Your task to perform on an android device: check data usage Image 0: 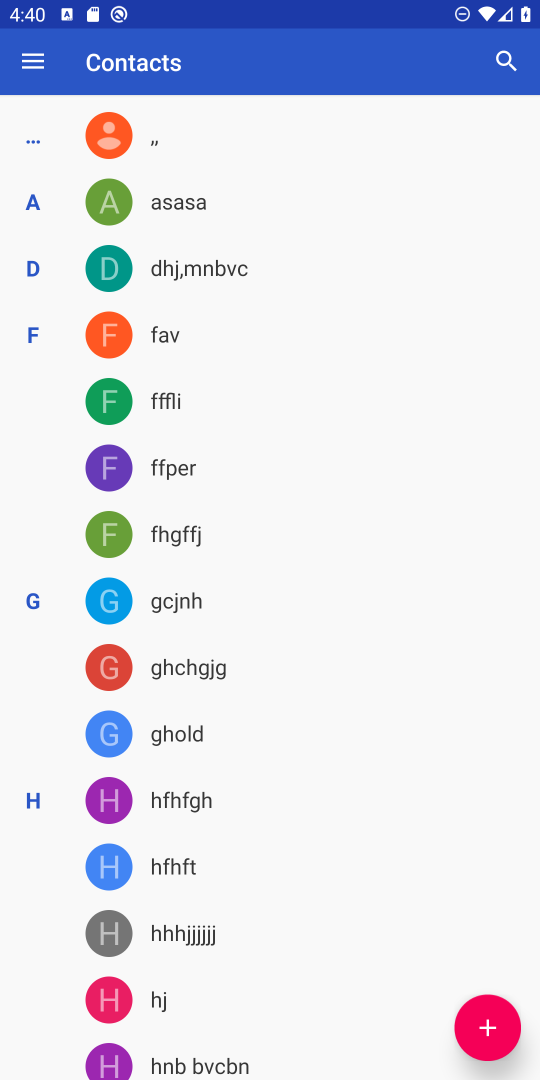
Step 0: press home button
Your task to perform on an android device: check data usage Image 1: 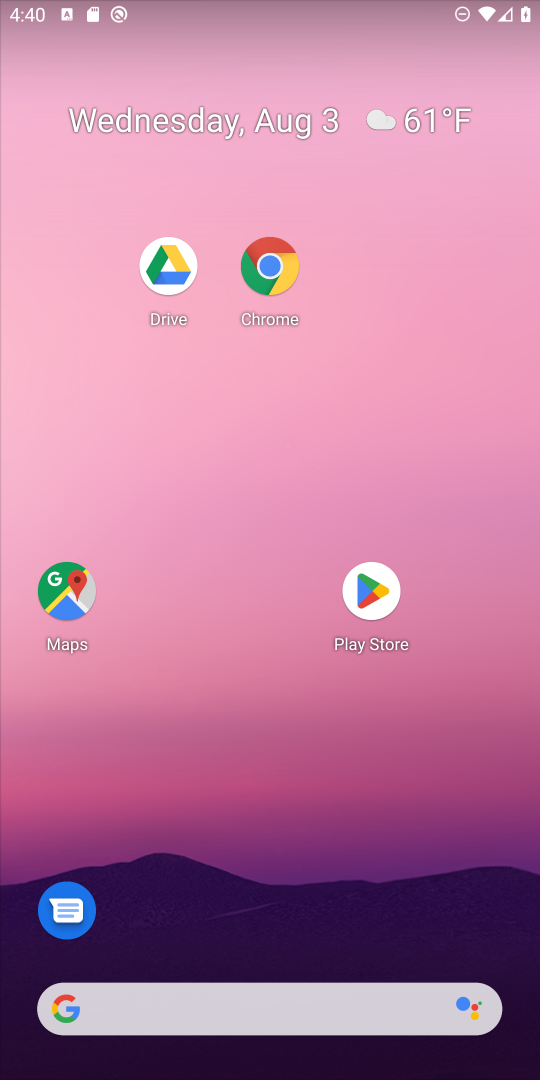
Step 1: drag from (271, 1006) to (493, 52)
Your task to perform on an android device: check data usage Image 2: 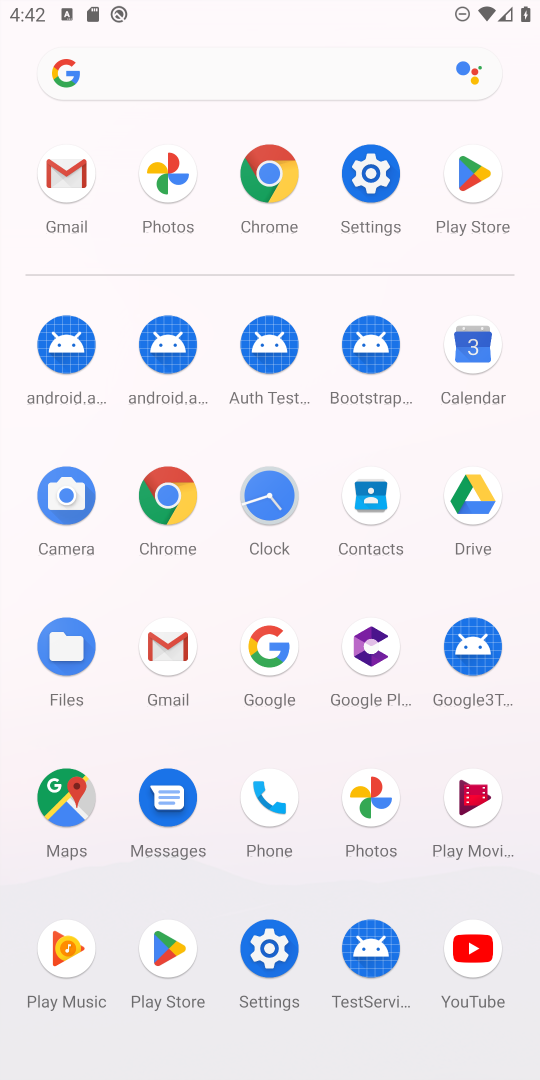
Step 2: click (375, 176)
Your task to perform on an android device: check data usage Image 3: 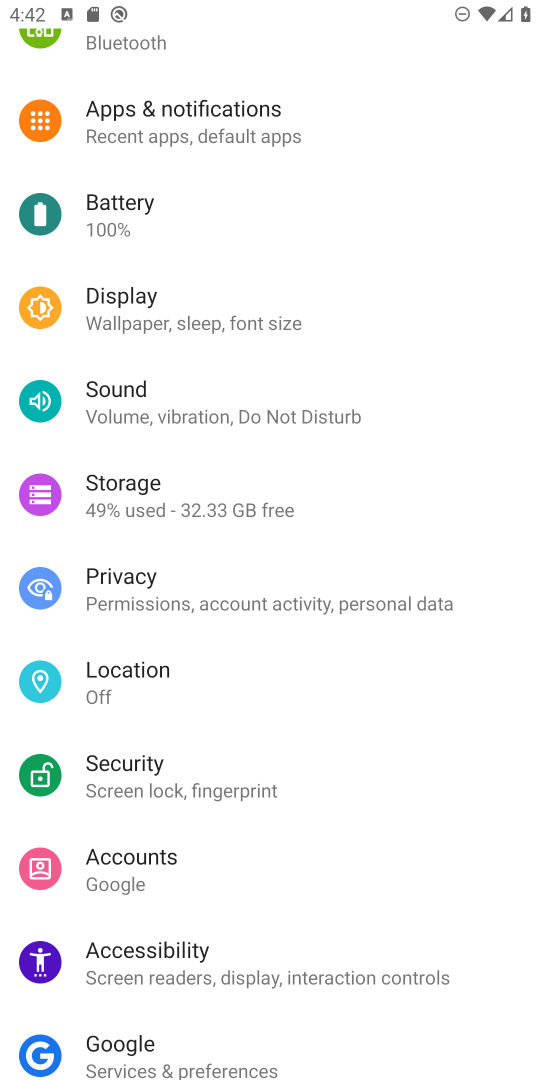
Step 3: drag from (193, 124) to (198, 1057)
Your task to perform on an android device: check data usage Image 4: 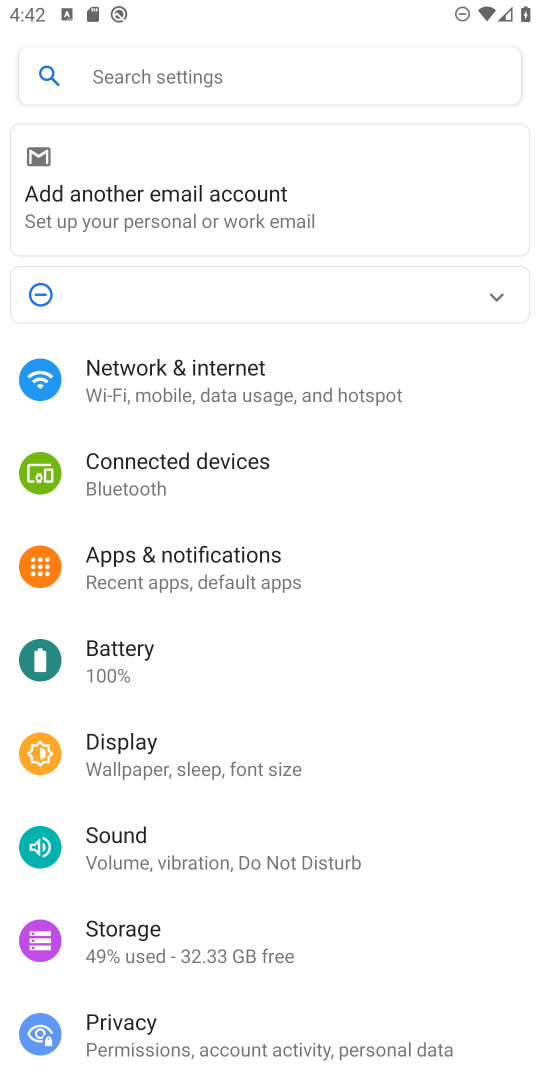
Step 4: click (189, 393)
Your task to perform on an android device: check data usage Image 5: 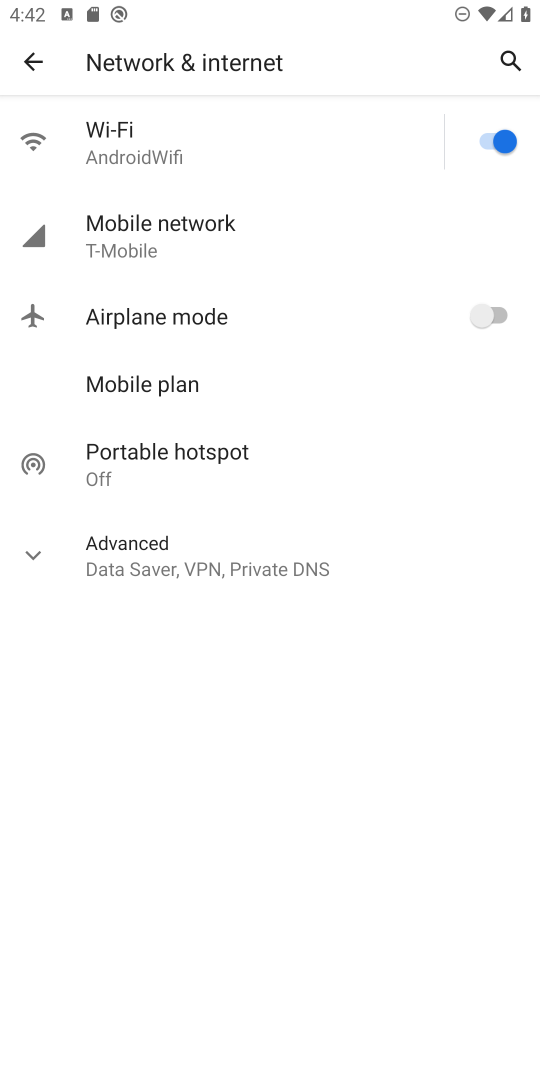
Step 5: task complete